Your task to perform on an android device: Open eBay Image 0: 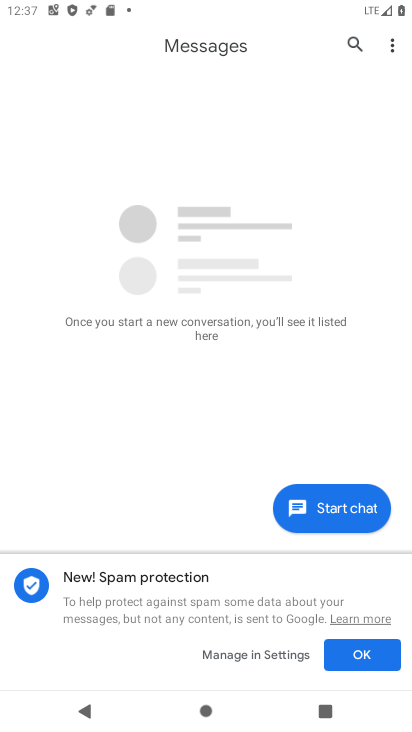
Step 0: press home button
Your task to perform on an android device: Open eBay Image 1: 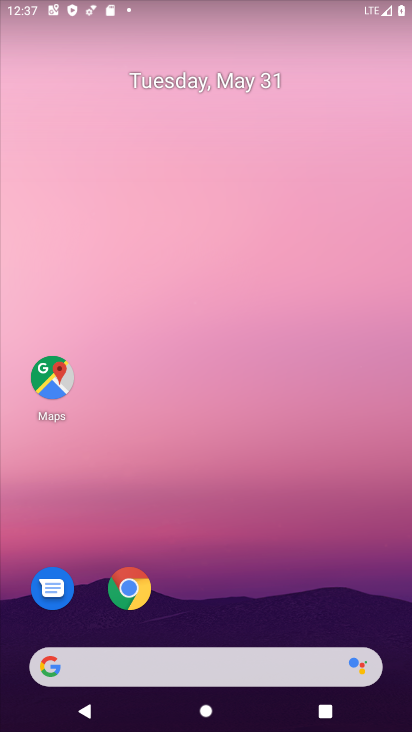
Step 1: click (126, 580)
Your task to perform on an android device: Open eBay Image 2: 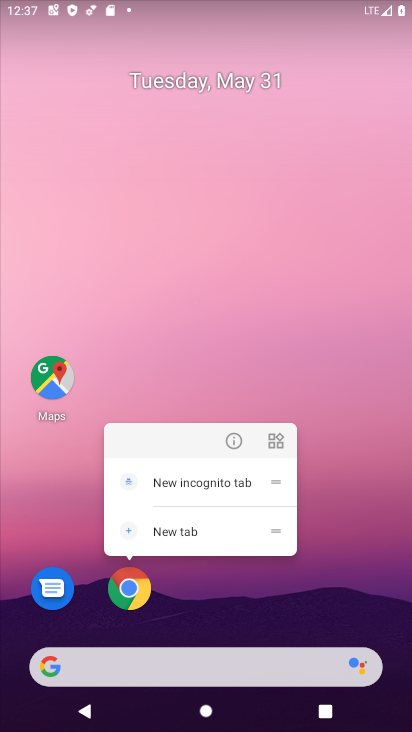
Step 2: click (126, 580)
Your task to perform on an android device: Open eBay Image 3: 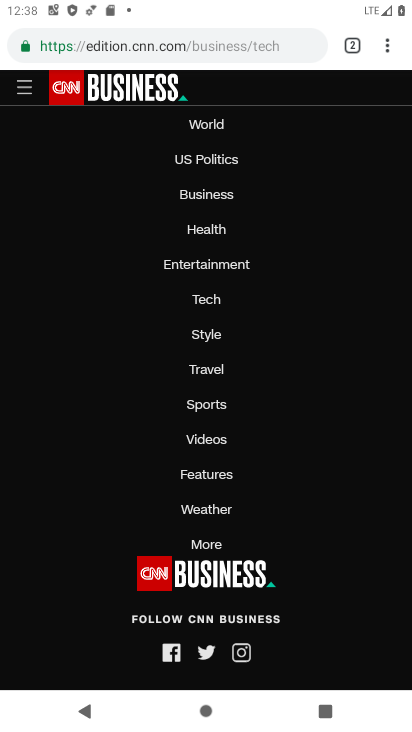
Step 3: click (345, 40)
Your task to perform on an android device: Open eBay Image 4: 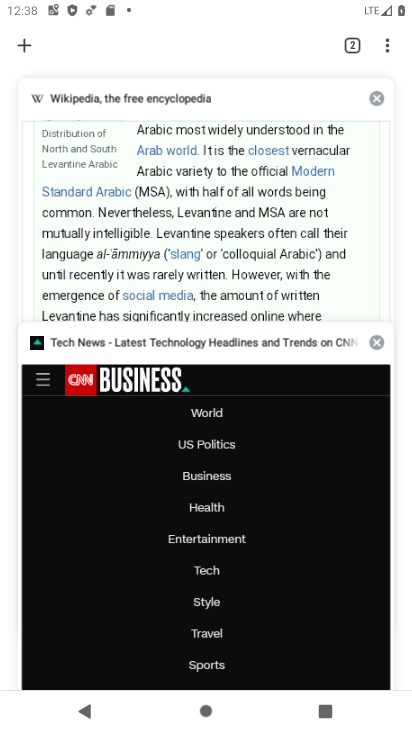
Step 4: click (374, 96)
Your task to perform on an android device: Open eBay Image 5: 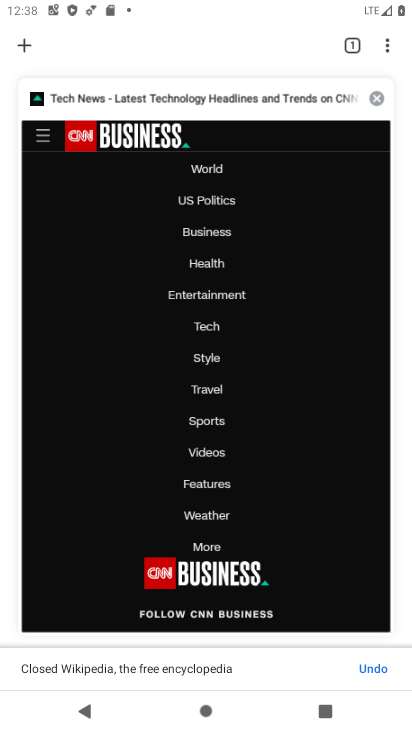
Step 5: click (373, 95)
Your task to perform on an android device: Open eBay Image 6: 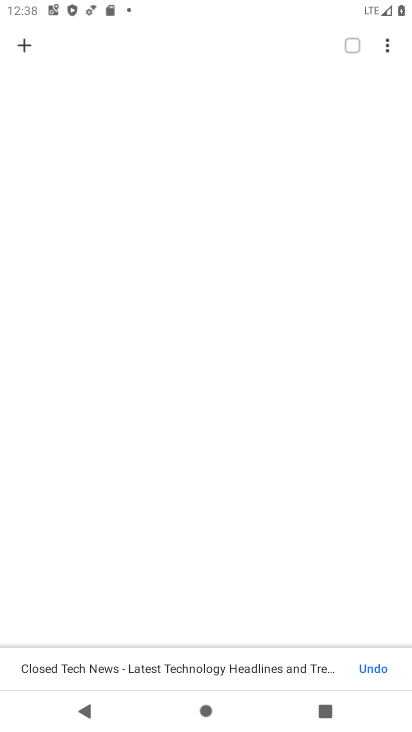
Step 6: click (28, 46)
Your task to perform on an android device: Open eBay Image 7: 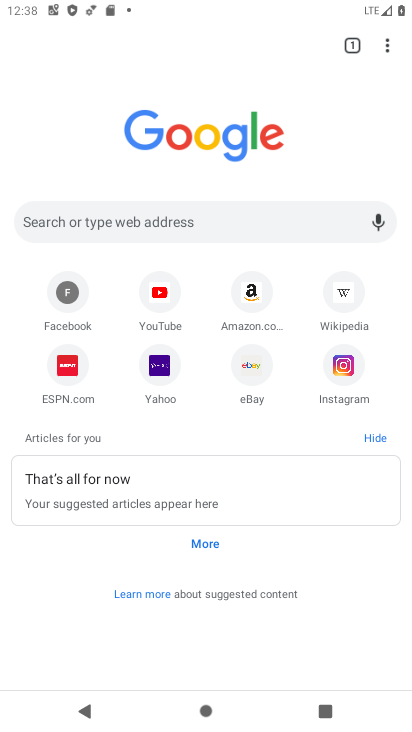
Step 7: click (250, 365)
Your task to perform on an android device: Open eBay Image 8: 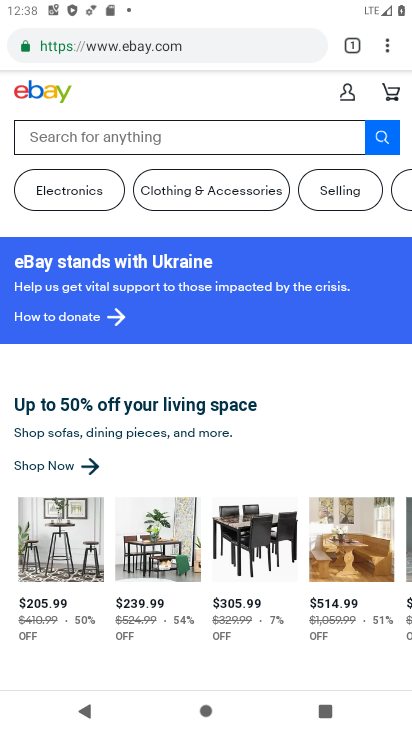
Step 8: task complete